Your task to perform on an android device: check data usage Image 0: 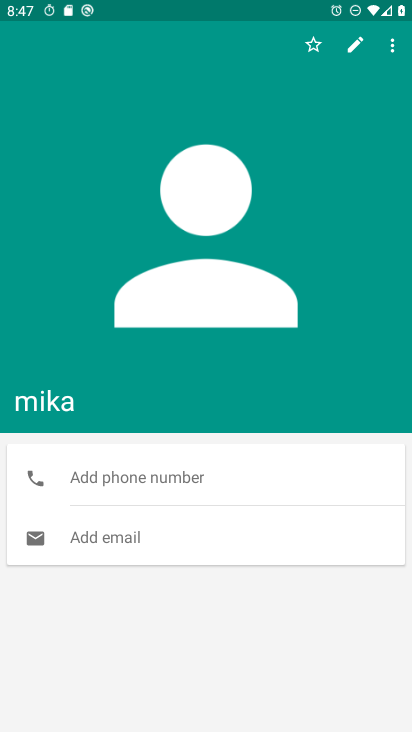
Step 0: press home button
Your task to perform on an android device: check data usage Image 1: 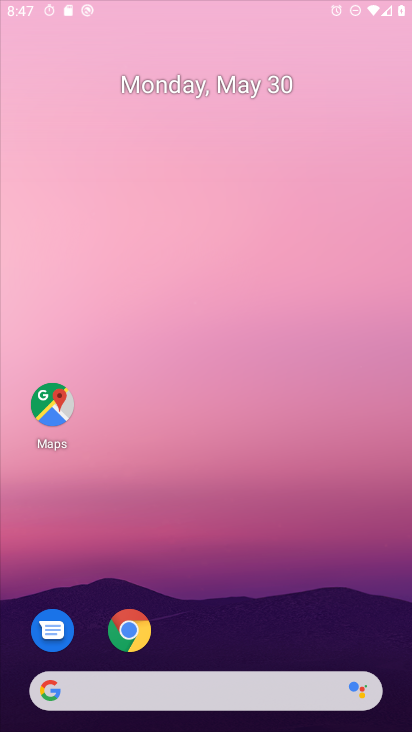
Step 1: drag from (362, 655) to (323, 175)
Your task to perform on an android device: check data usage Image 2: 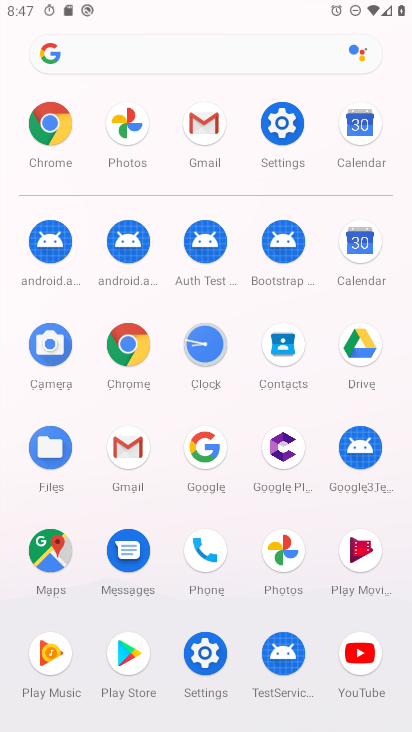
Step 2: click (281, 130)
Your task to perform on an android device: check data usage Image 3: 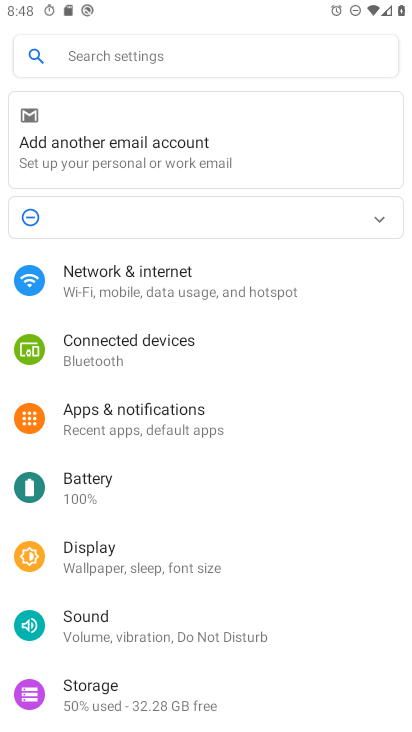
Step 3: click (156, 289)
Your task to perform on an android device: check data usage Image 4: 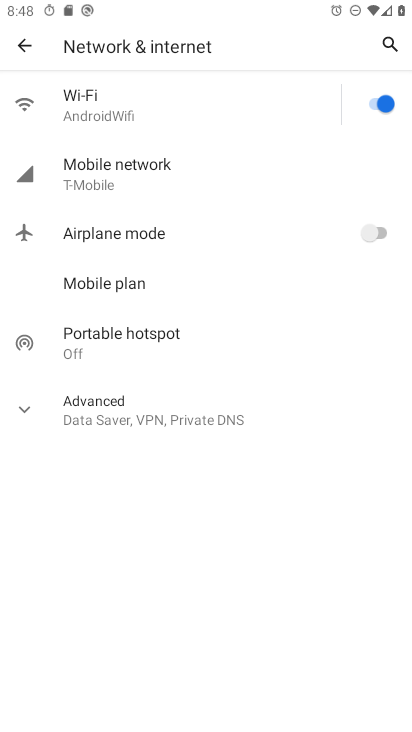
Step 4: click (183, 170)
Your task to perform on an android device: check data usage Image 5: 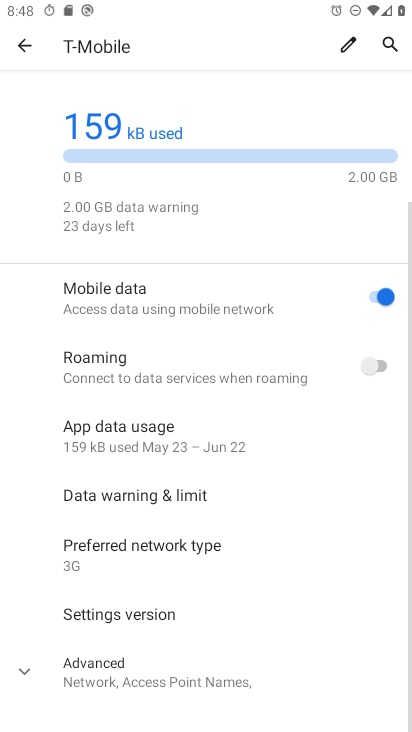
Step 5: click (190, 432)
Your task to perform on an android device: check data usage Image 6: 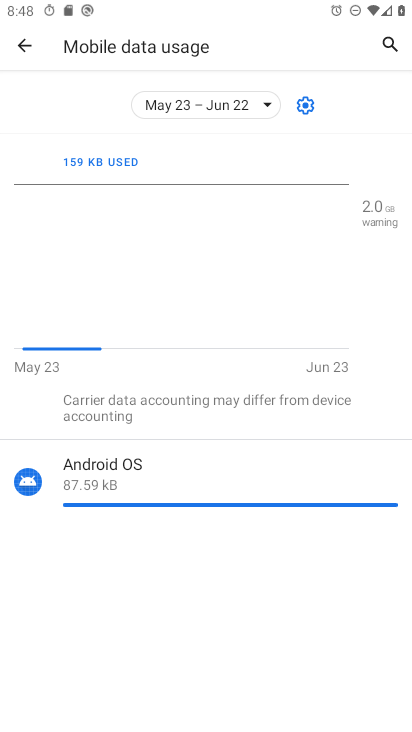
Step 6: task complete